Your task to perform on an android device: Open location settings Image 0: 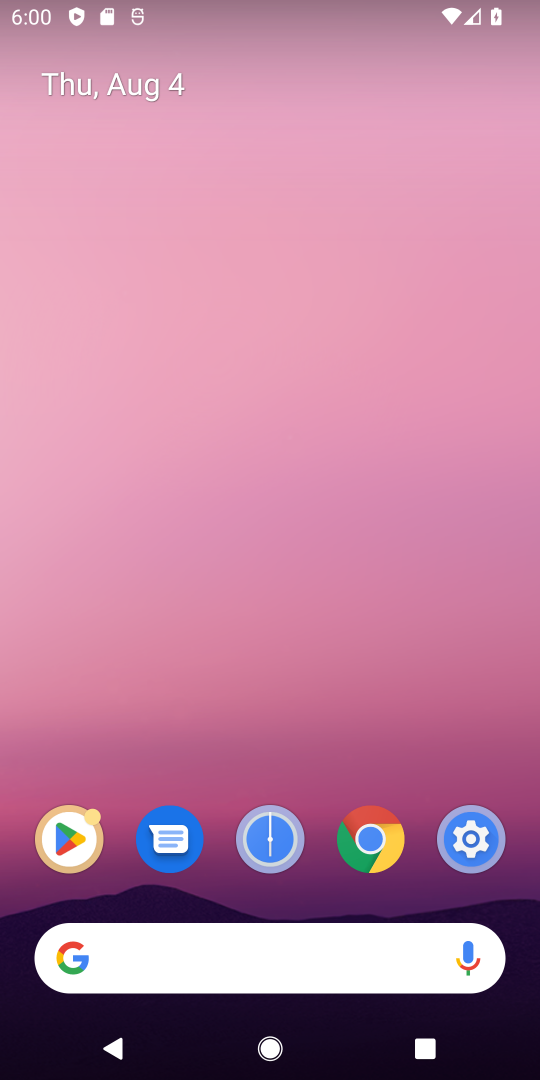
Step 0: drag from (236, 908) to (290, 49)
Your task to perform on an android device: Open location settings Image 1: 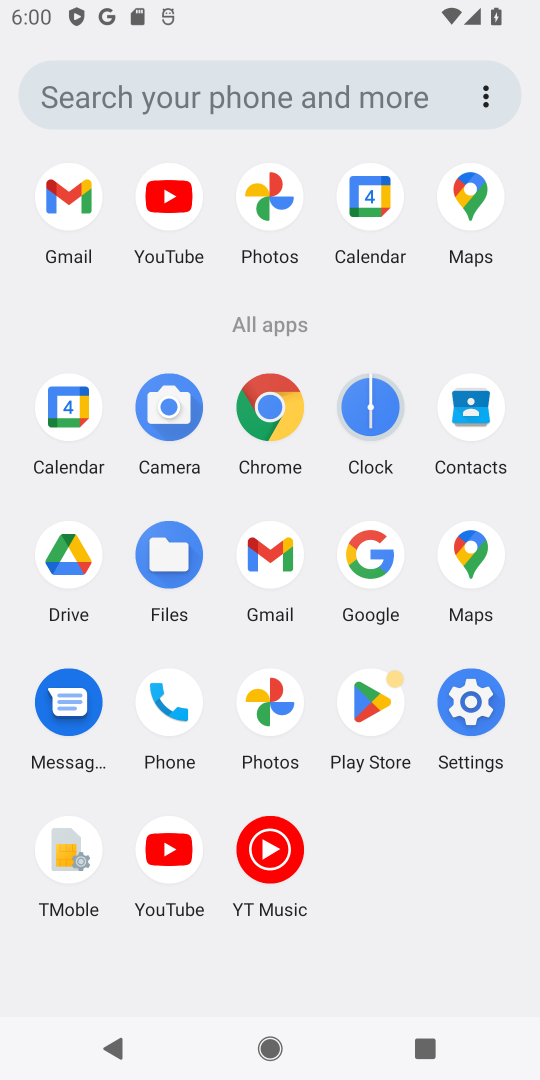
Step 1: click (486, 703)
Your task to perform on an android device: Open location settings Image 2: 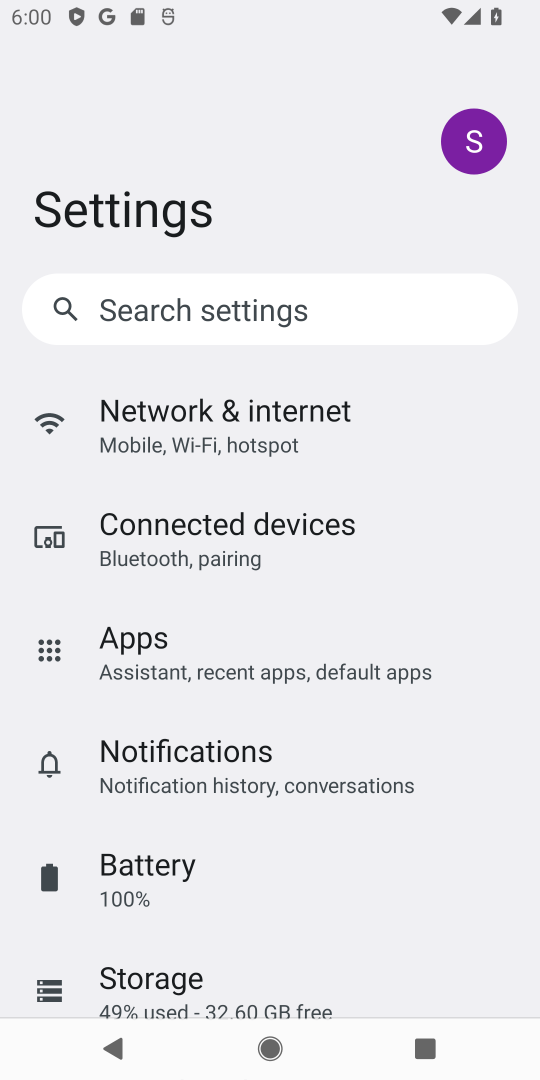
Step 2: drag from (368, 825) to (479, 125)
Your task to perform on an android device: Open location settings Image 3: 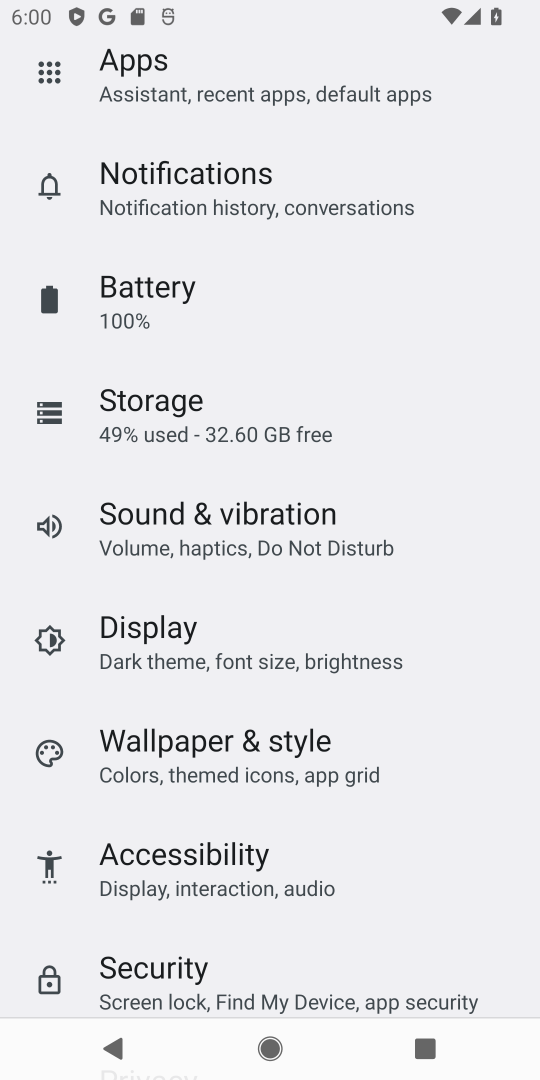
Step 3: drag from (240, 220) to (200, 777)
Your task to perform on an android device: Open location settings Image 4: 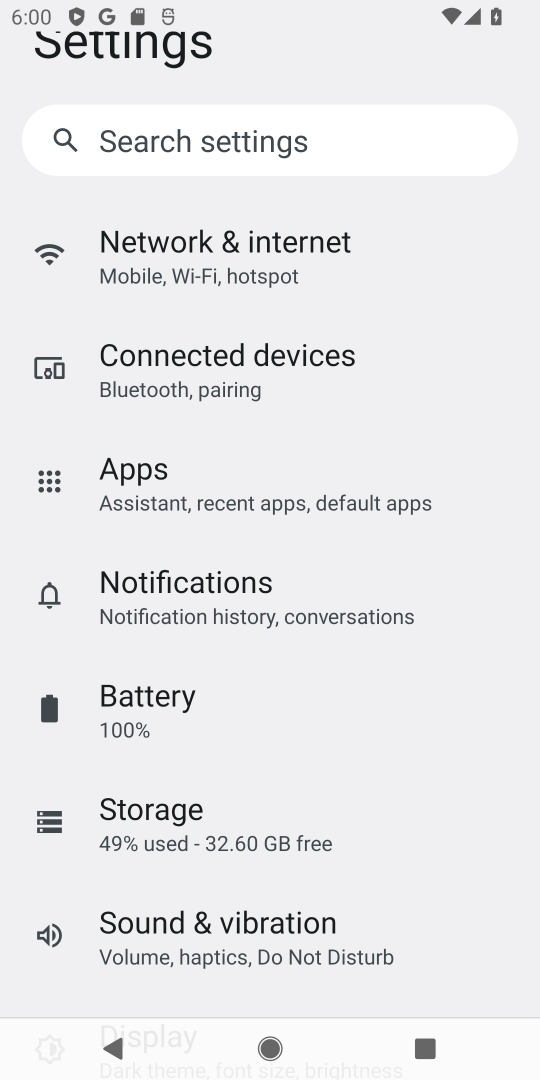
Step 4: drag from (350, 664) to (395, 340)
Your task to perform on an android device: Open location settings Image 5: 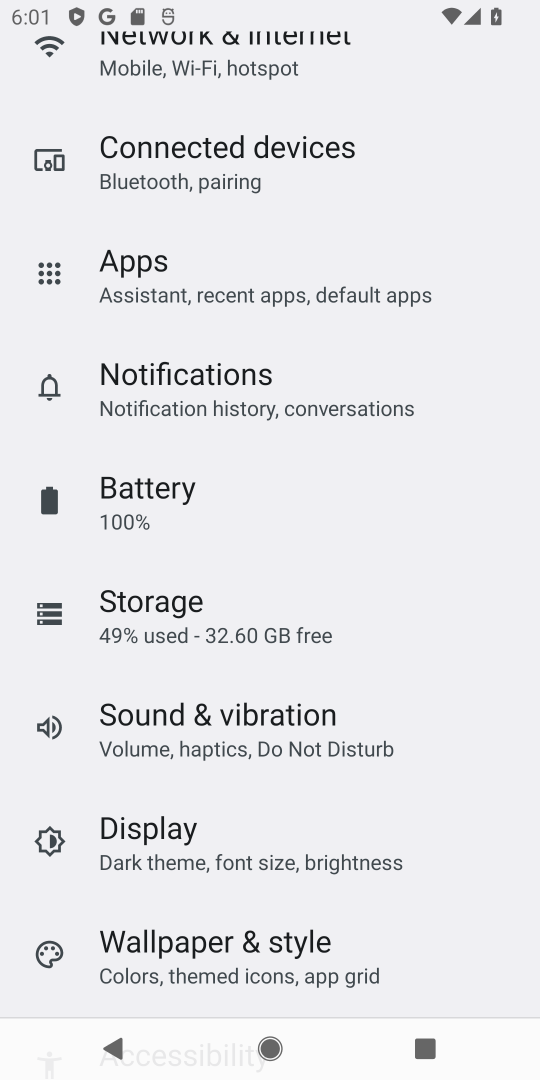
Step 5: drag from (348, 232) to (279, 895)
Your task to perform on an android device: Open location settings Image 6: 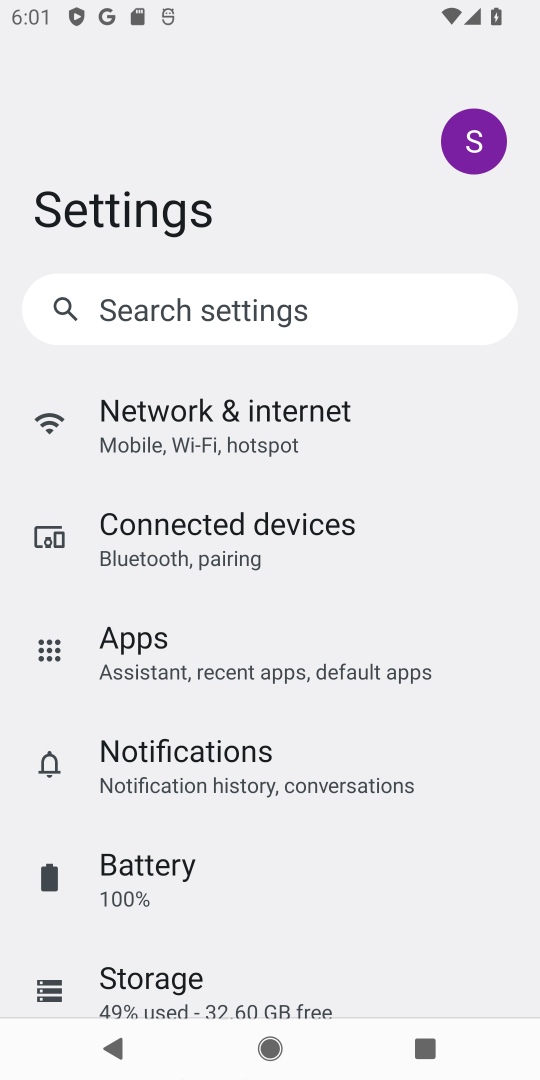
Step 6: drag from (327, 897) to (423, 314)
Your task to perform on an android device: Open location settings Image 7: 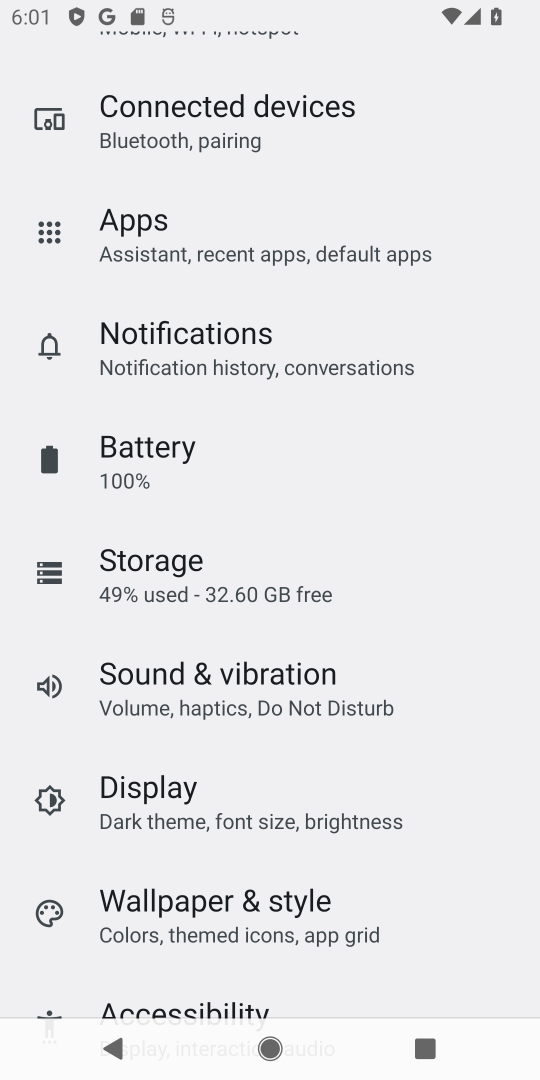
Step 7: drag from (366, 800) to (457, 200)
Your task to perform on an android device: Open location settings Image 8: 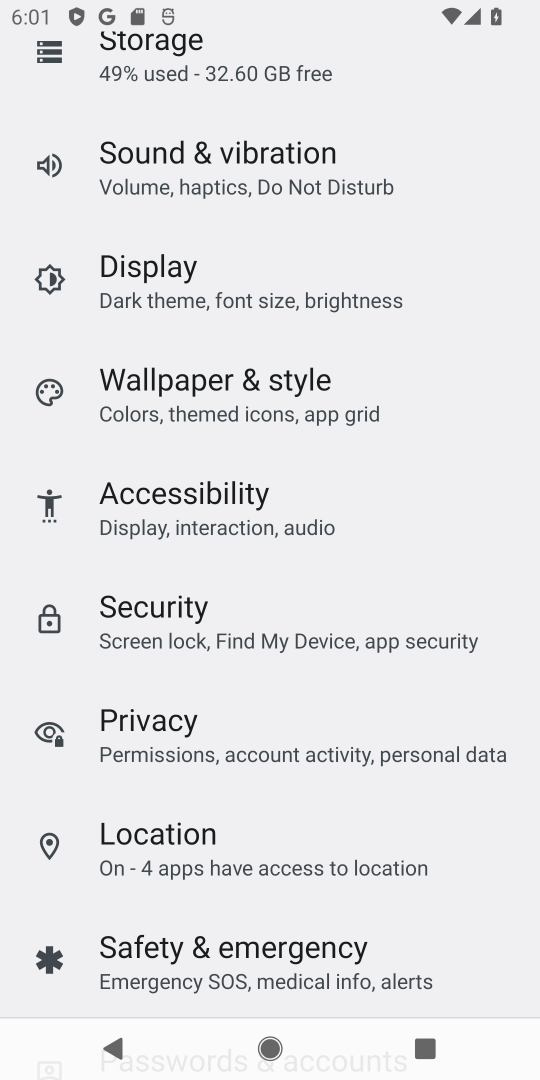
Step 8: click (149, 829)
Your task to perform on an android device: Open location settings Image 9: 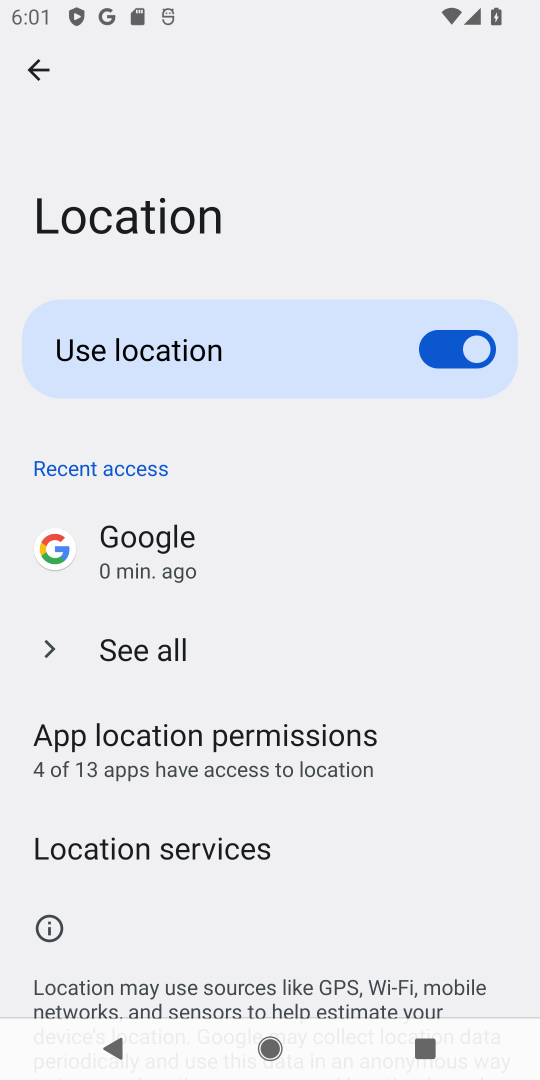
Step 9: task complete